Your task to perform on an android device: choose inbox layout in the gmail app Image 0: 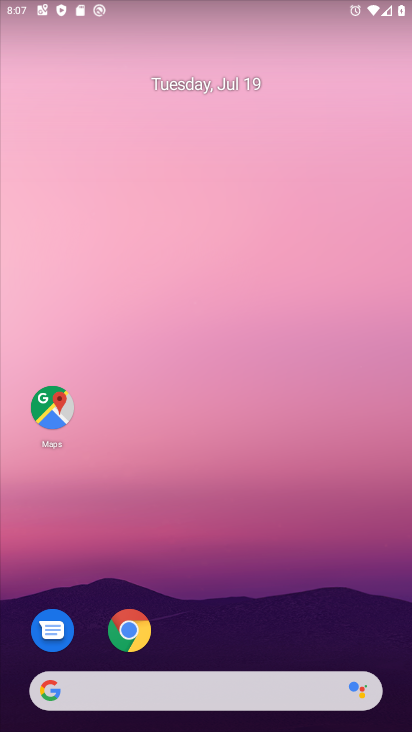
Step 0: drag from (183, 592) to (164, 63)
Your task to perform on an android device: choose inbox layout in the gmail app Image 1: 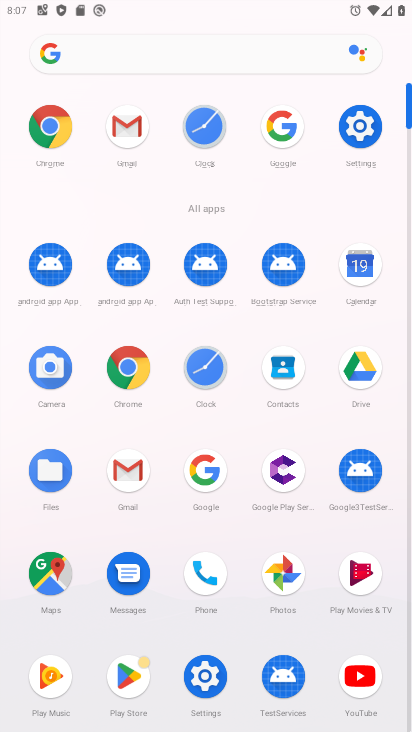
Step 1: click (128, 481)
Your task to perform on an android device: choose inbox layout in the gmail app Image 2: 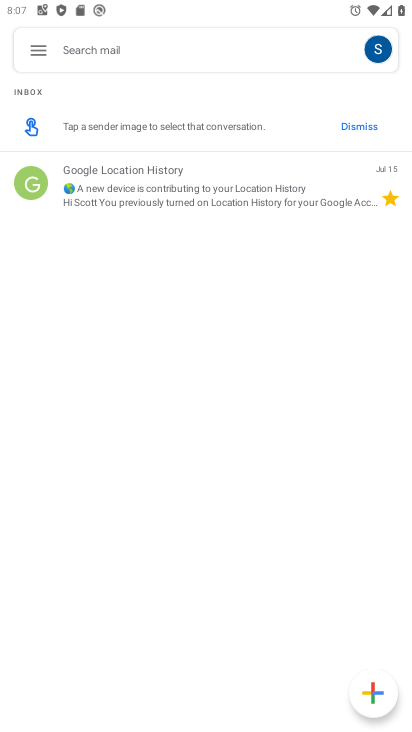
Step 2: click (37, 47)
Your task to perform on an android device: choose inbox layout in the gmail app Image 3: 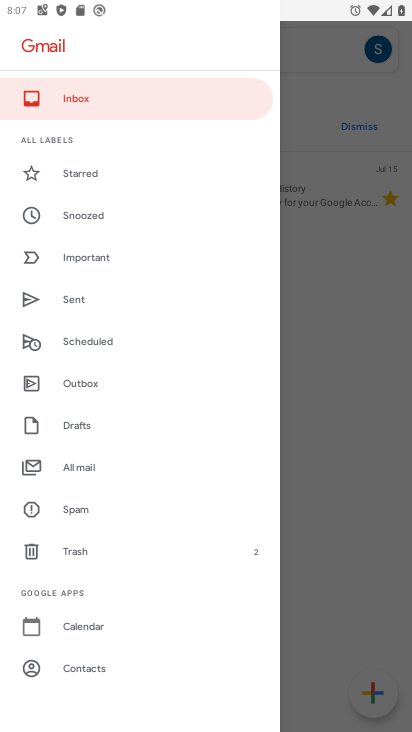
Step 3: drag from (107, 597) to (160, 148)
Your task to perform on an android device: choose inbox layout in the gmail app Image 4: 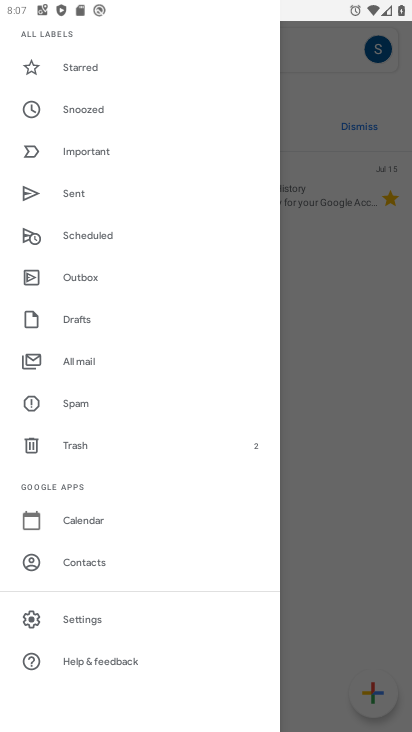
Step 4: click (83, 620)
Your task to perform on an android device: choose inbox layout in the gmail app Image 5: 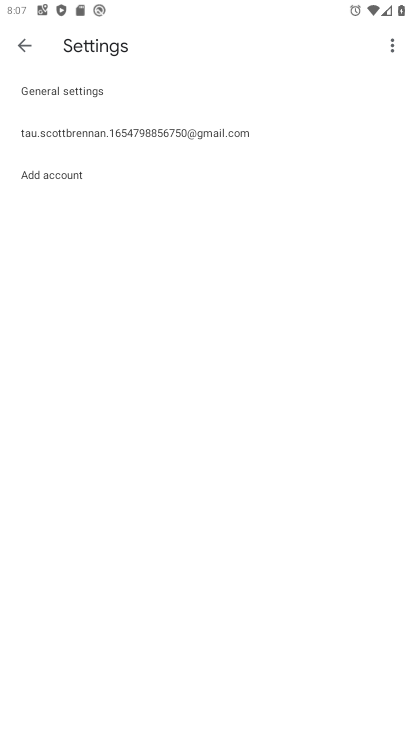
Step 5: click (104, 125)
Your task to perform on an android device: choose inbox layout in the gmail app Image 6: 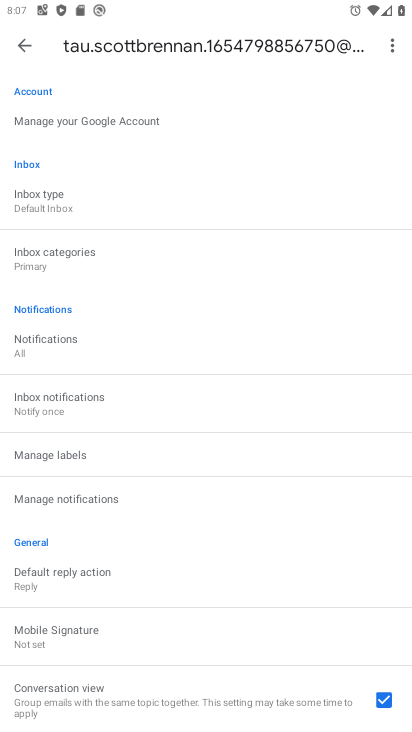
Step 6: click (54, 203)
Your task to perform on an android device: choose inbox layout in the gmail app Image 7: 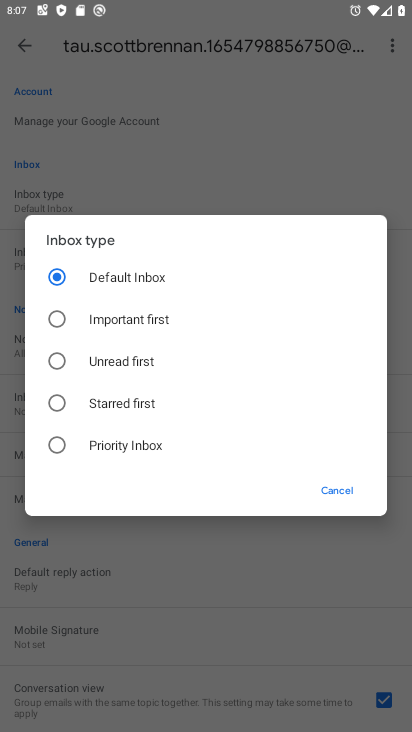
Step 7: click (46, 445)
Your task to perform on an android device: choose inbox layout in the gmail app Image 8: 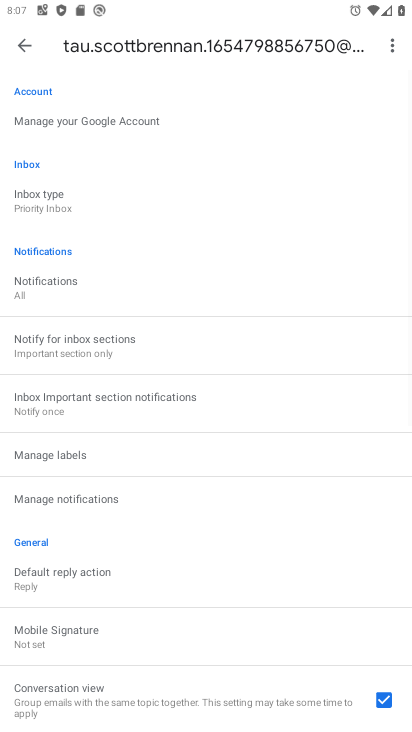
Step 8: task complete